Your task to perform on an android device: Open calendar and show me the second week of next month Image 0: 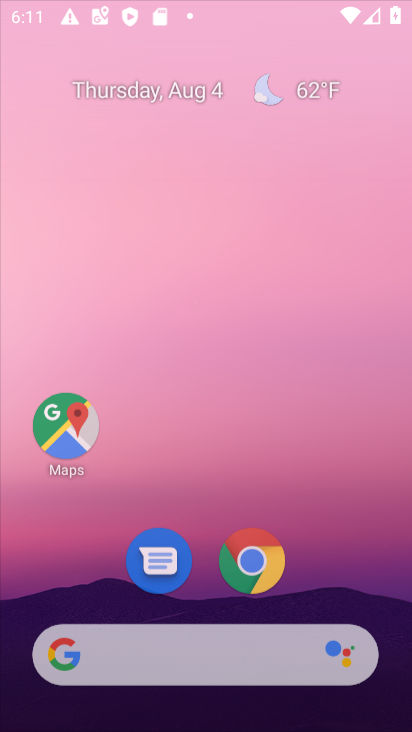
Step 0: press home button
Your task to perform on an android device: Open calendar and show me the second week of next month Image 1: 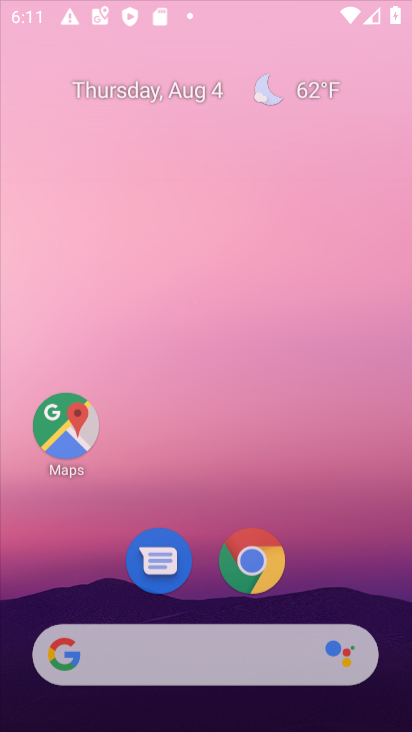
Step 1: click (179, 57)
Your task to perform on an android device: Open calendar and show me the second week of next month Image 2: 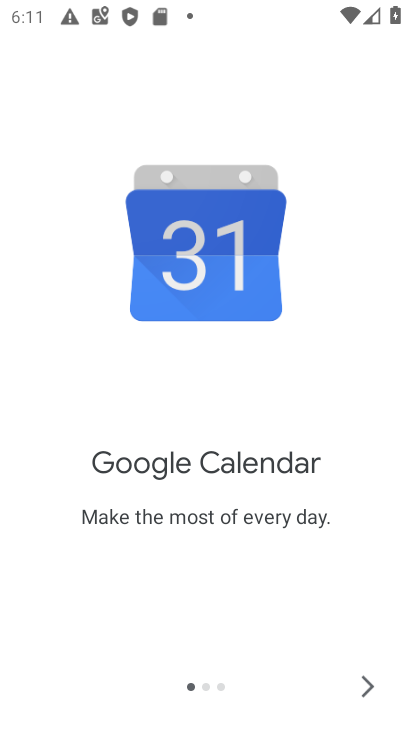
Step 2: click (367, 682)
Your task to perform on an android device: Open calendar and show me the second week of next month Image 3: 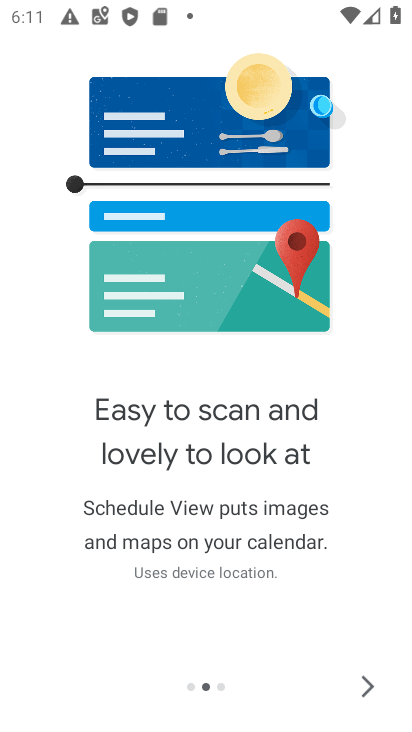
Step 3: click (364, 688)
Your task to perform on an android device: Open calendar and show me the second week of next month Image 4: 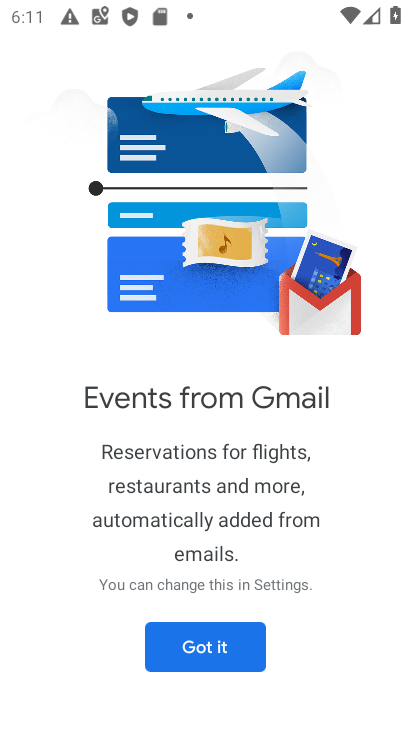
Step 4: click (201, 655)
Your task to perform on an android device: Open calendar and show me the second week of next month Image 5: 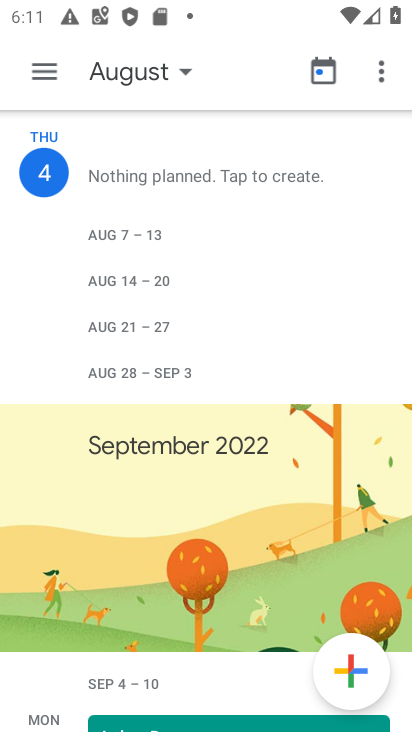
Step 5: click (183, 81)
Your task to perform on an android device: Open calendar and show me the second week of next month Image 6: 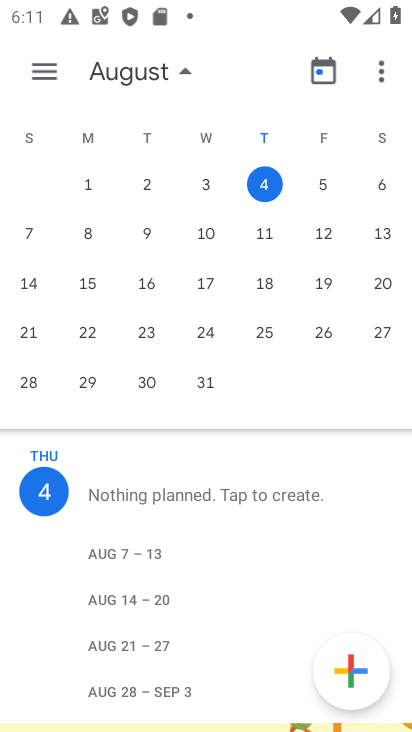
Step 6: drag from (315, 252) to (39, 249)
Your task to perform on an android device: Open calendar and show me the second week of next month Image 7: 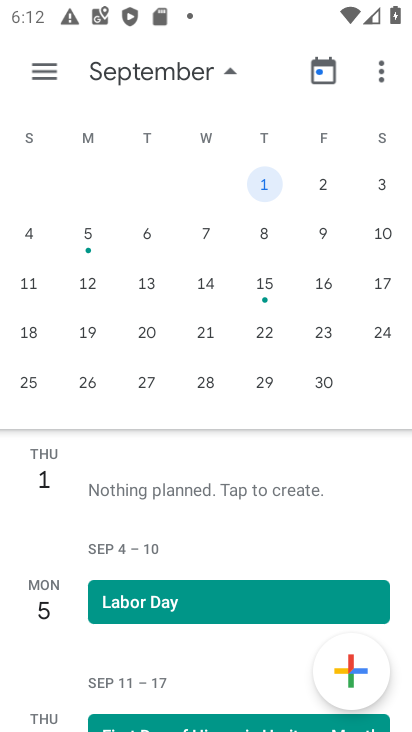
Step 7: click (32, 244)
Your task to perform on an android device: Open calendar and show me the second week of next month Image 8: 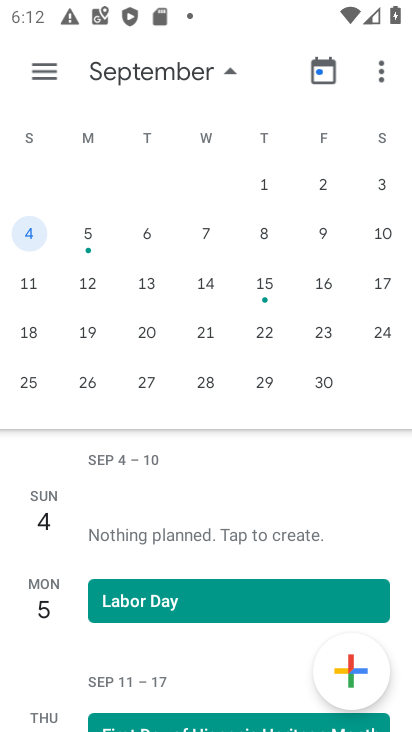
Step 8: click (92, 239)
Your task to perform on an android device: Open calendar and show me the second week of next month Image 9: 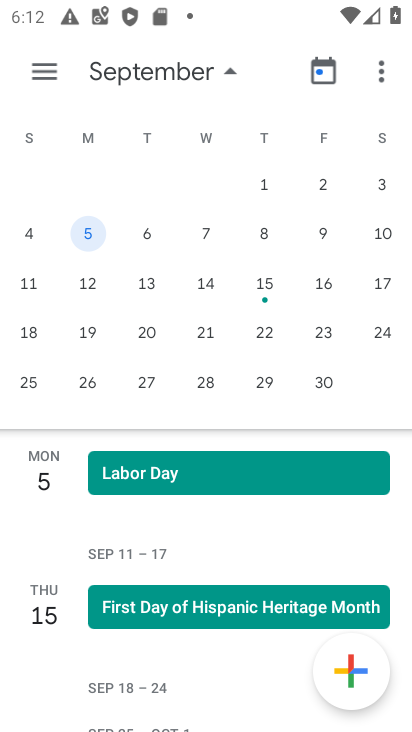
Step 9: click (151, 235)
Your task to perform on an android device: Open calendar and show me the second week of next month Image 10: 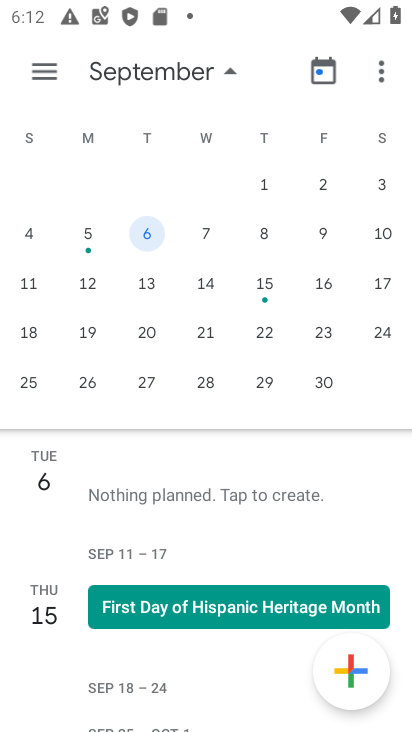
Step 10: click (211, 236)
Your task to perform on an android device: Open calendar and show me the second week of next month Image 11: 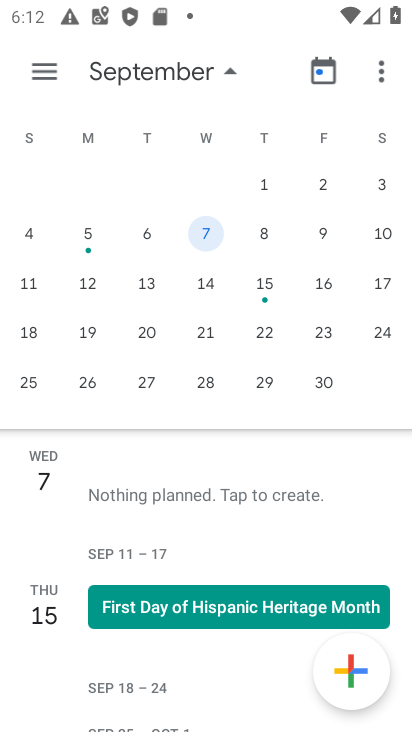
Step 11: click (268, 239)
Your task to perform on an android device: Open calendar and show me the second week of next month Image 12: 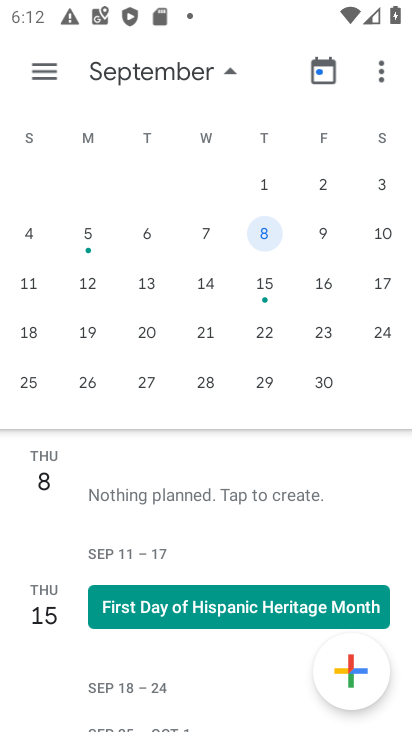
Step 12: click (321, 239)
Your task to perform on an android device: Open calendar and show me the second week of next month Image 13: 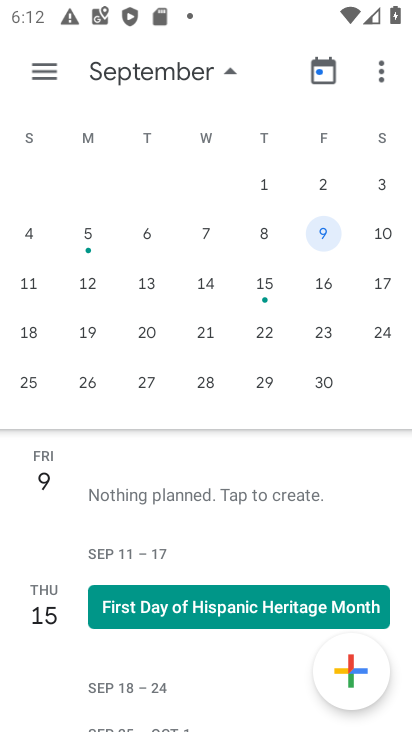
Step 13: click (383, 236)
Your task to perform on an android device: Open calendar and show me the second week of next month Image 14: 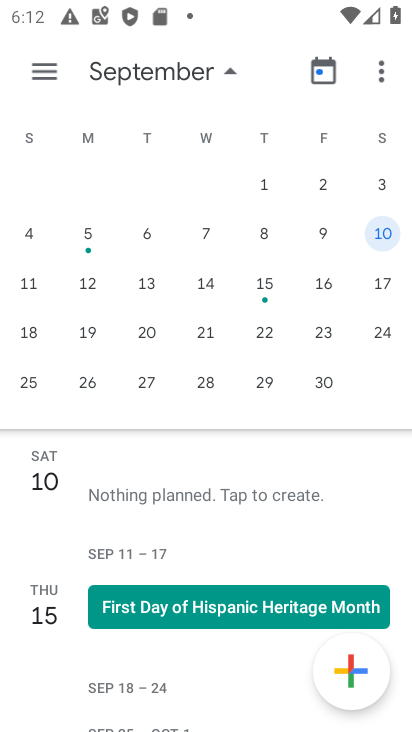
Step 14: task complete